Your task to perform on an android device: Go to Maps Image 0: 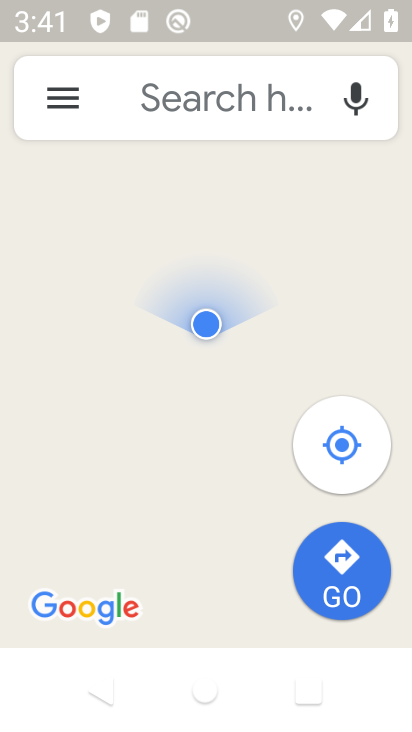
Step 0: task complete